Your task to perform on an android device: set an alarm Image 0: 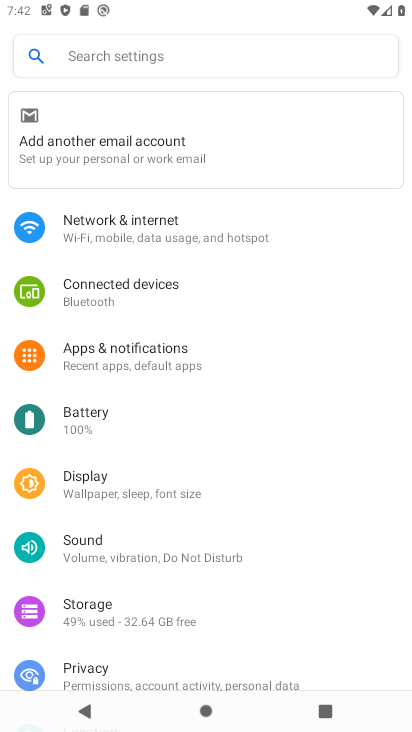
Step 0: press home button
Your task to perform on an android device: set an alarm Image 1: 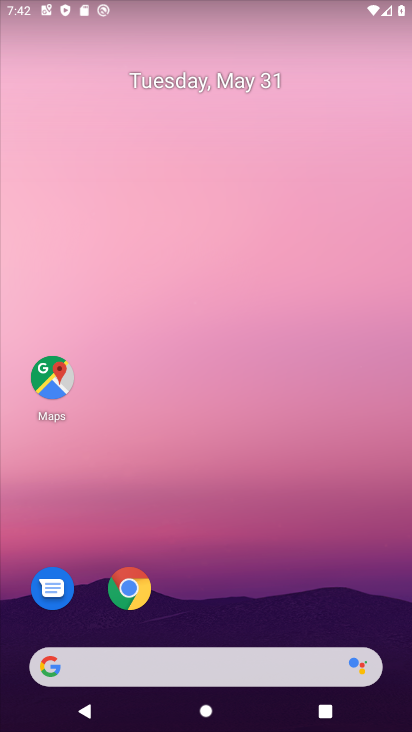
Step 1: drag from (208, 635) to (260, 194)
Your task to perform on an android device: set an alarm Image 2: 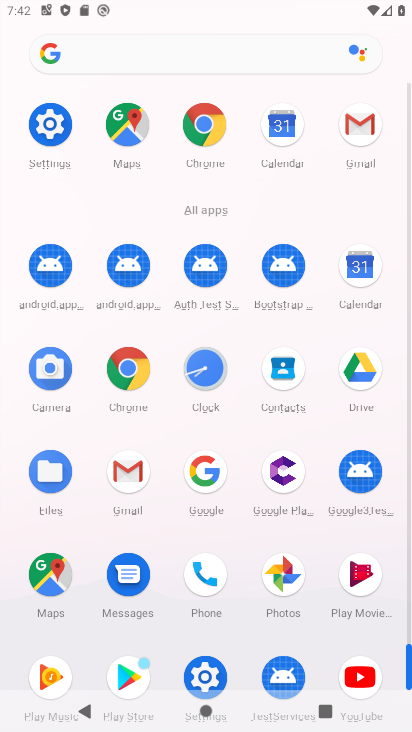
Step 2: click (203, 377)
Your task to perform on an android device: set an alarm Image 3: 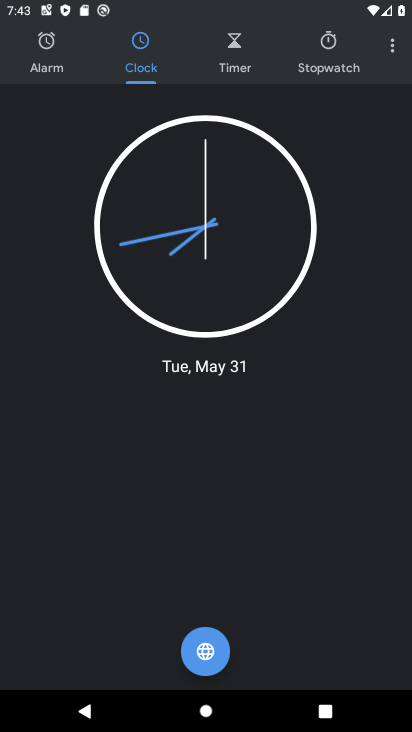
Step 3: click (52, 66)
Your task to perform on an android device: set an alarm Image 4: 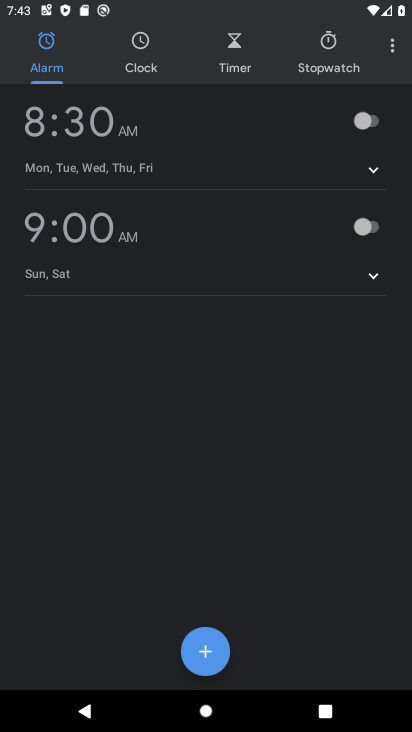
Step 4: click (393, 122)
Your task to perform on an android device: set an alarm Image 5: 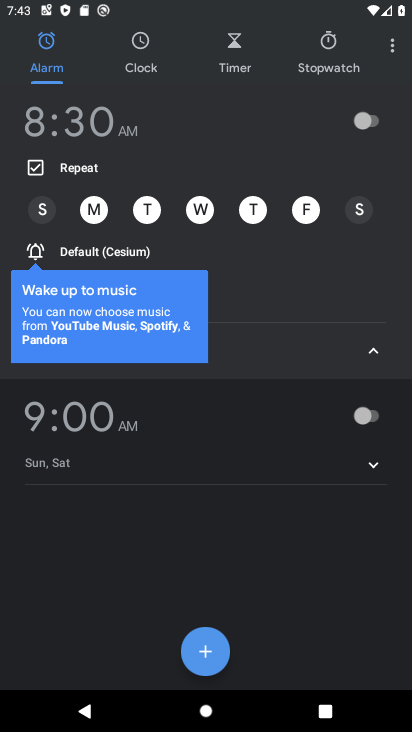
Step 5: click (203, 213)
Your task to perform on an android device: set an alarm Image 6: 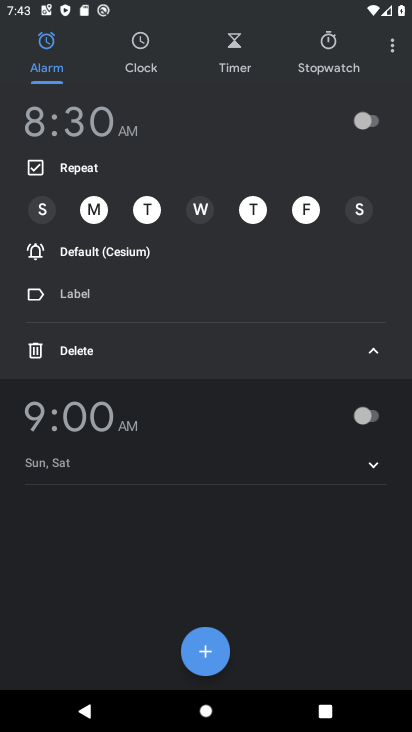
Step 6: click (361, 212)
Your task to perform on an android device: set an alarm Image 7: 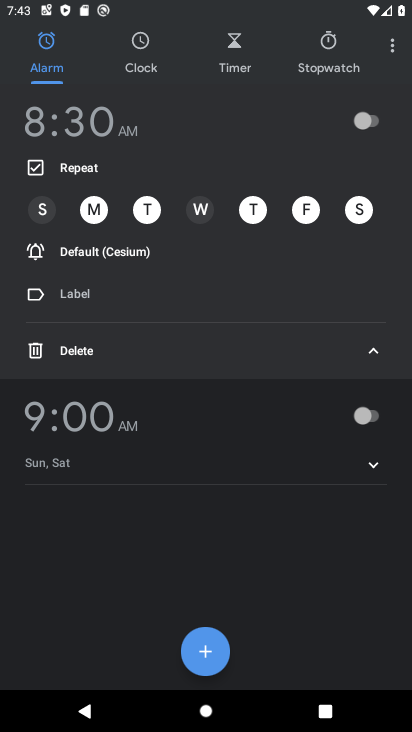
Step 7: click (369, 120)
Your task to perform on an android device: set an alarm Image 8: 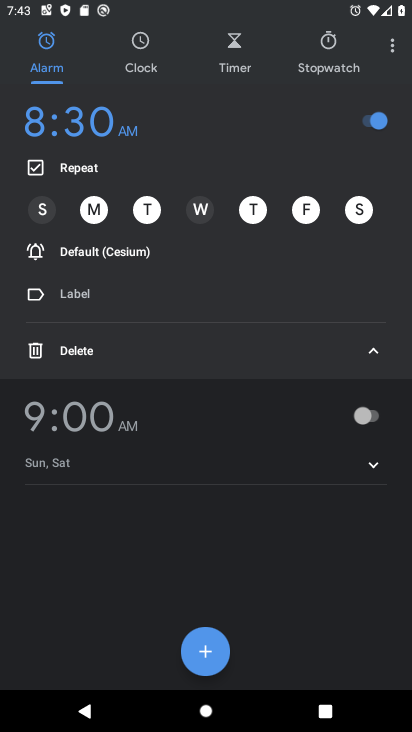
Step 8: task complete